Your task to perform on an android device: Search for 35 best books of all time Image 0: 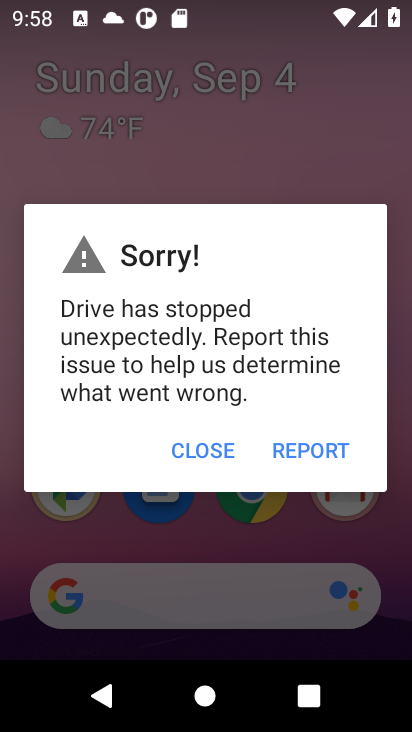
Step 0: click (228, 445)
Your task to perform on an android device: Search for 35 best books of all time Image 1: 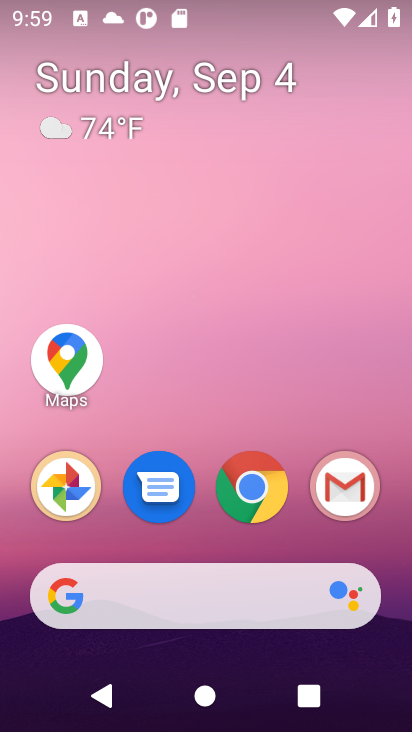
Step 1: click (218, 579)
Your task to perform on an android device: Search for 35 best books of all time Image 2: 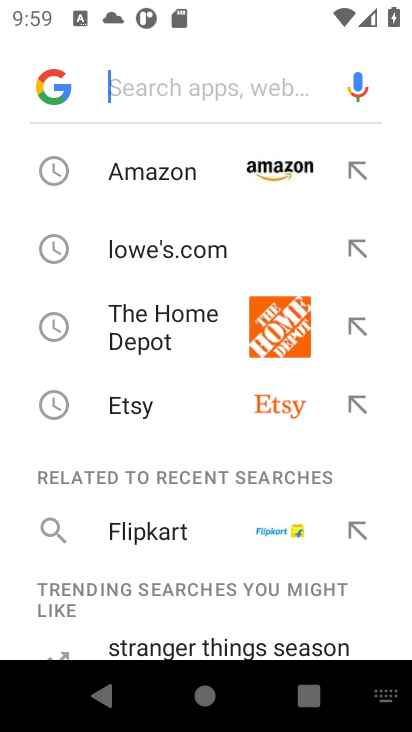
Step 2: type "35 best books of all time"
Your task to perform on an android device: Search for 35 best books of all time Image 3: 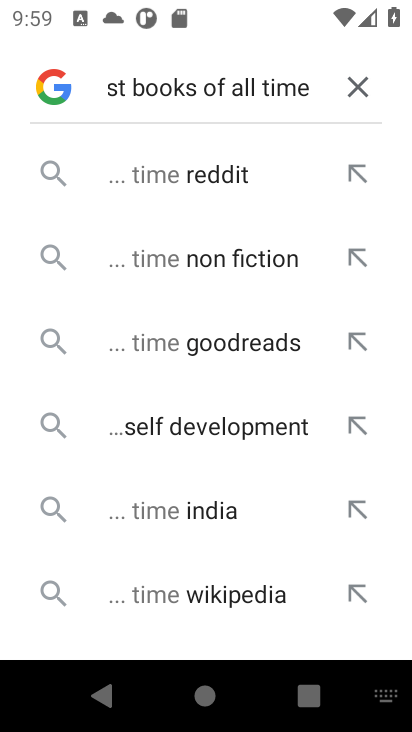
Step 3: click (320, 92)
Your task to perform on an android device: Search for 35 best books of all time Image 4: 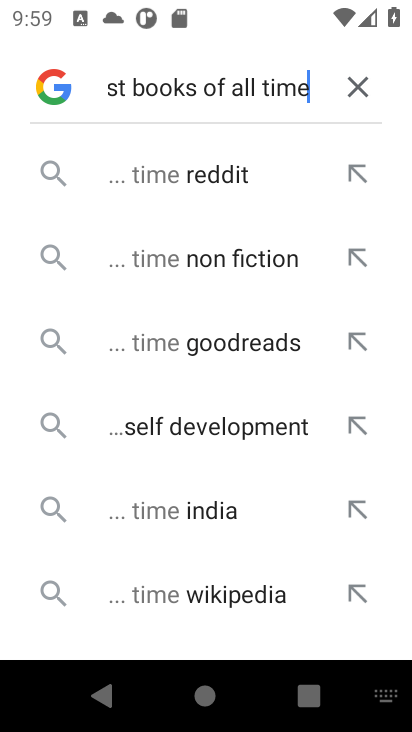
Step 4: press home button
Your task to perform on an android device: Search for 35 best books of all time Image 5: 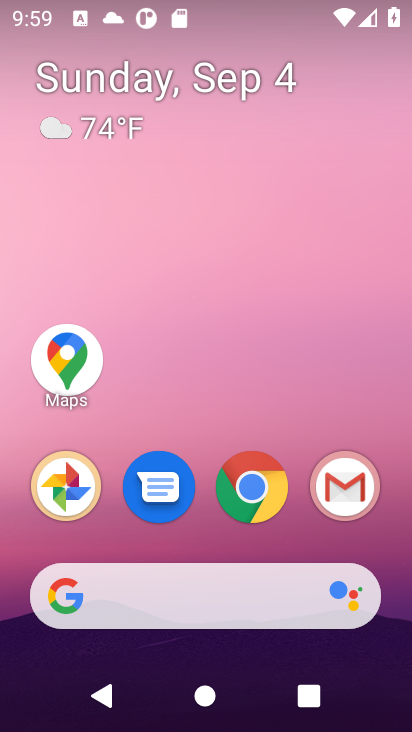
Step 5: click (252, 496)
Your task to perform on an android device: Search for 35 best books of all time Image 6: 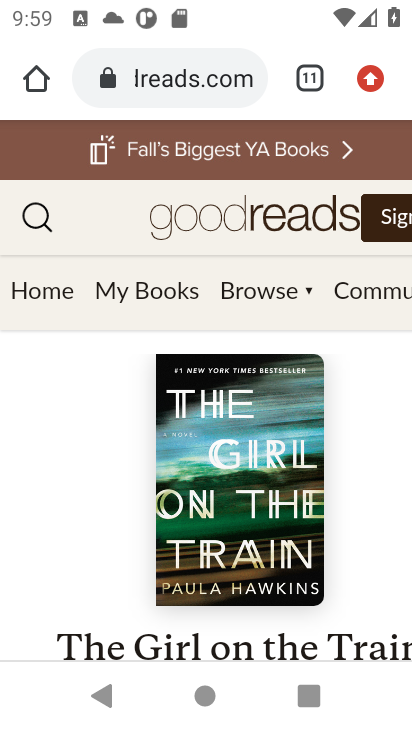
Step 6: click (258, 78)
Your task to perform on an android device: Search for 35 best books of all time Image 7: 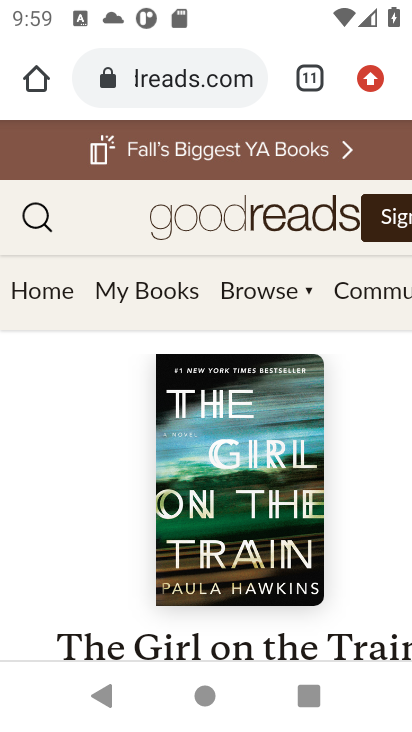
Step 7: click (31, 75)
Your task to perform on an android device: Search for 35 best books of all time Image 8: 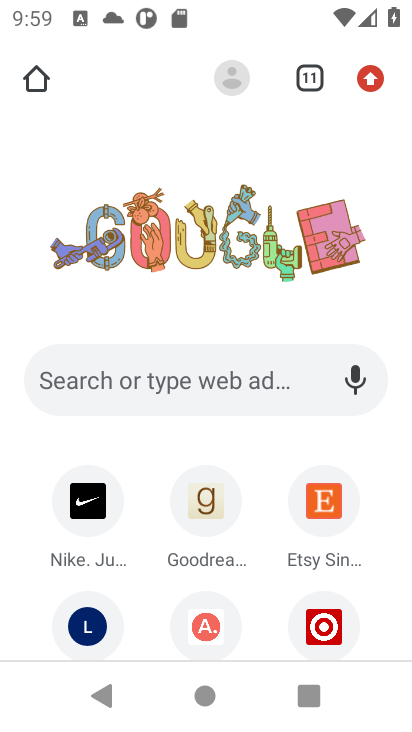
Step 8: click (228, 364)
Your task to perform on an android device: Search for 35 best books of all time Image 9: 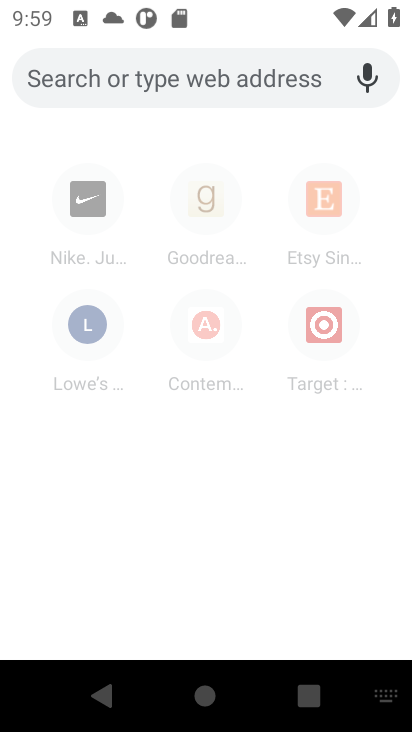
Step 9: type "35 best books of all time"
Your task to perform on an android device: Search for 35 best books of all time Image 10: 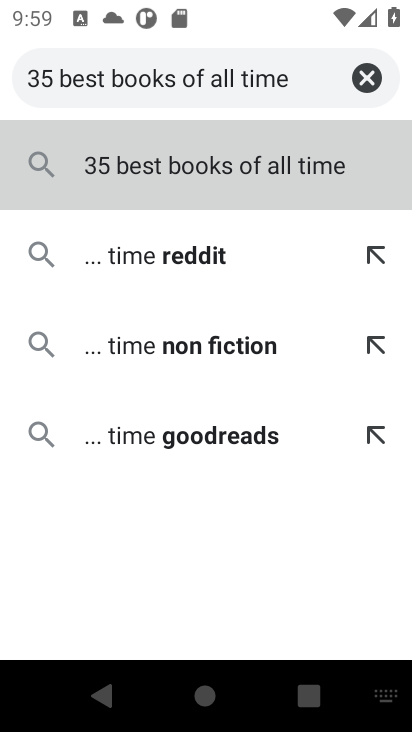
Step 10: click (147, 168)
Your task to perform on an android device: Search for 35 best books of all time Image 11: 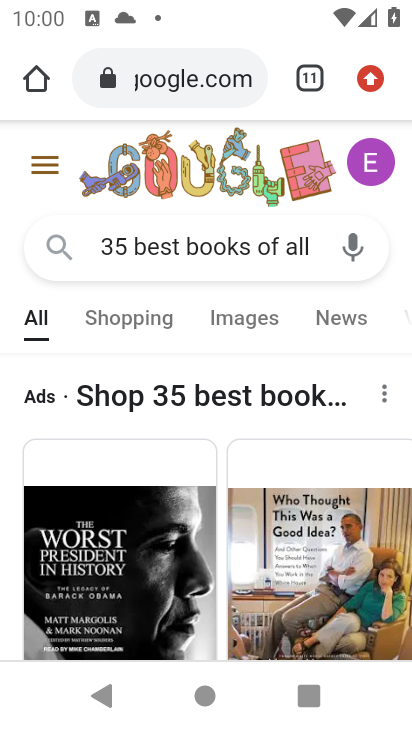
Step 11: drag from (227, 433) to (218, 100)
Your task to perform on an android device: Search for 35 best books of all time Image 12: 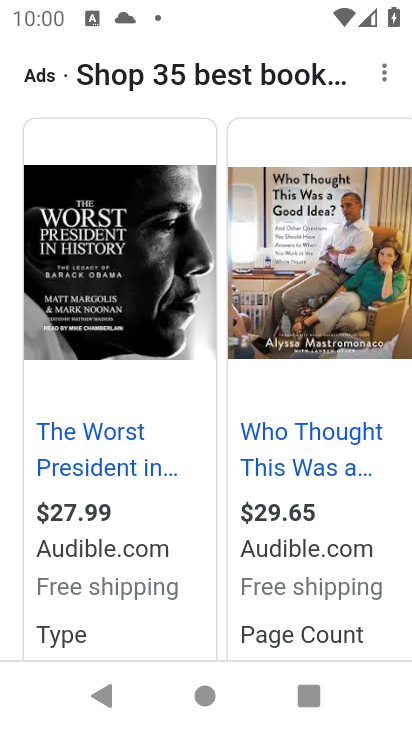
Step 12: drag from (220, 638) to (230, 123)
Your task to perform on an android device: Search for 35 best books of all time Image 13: 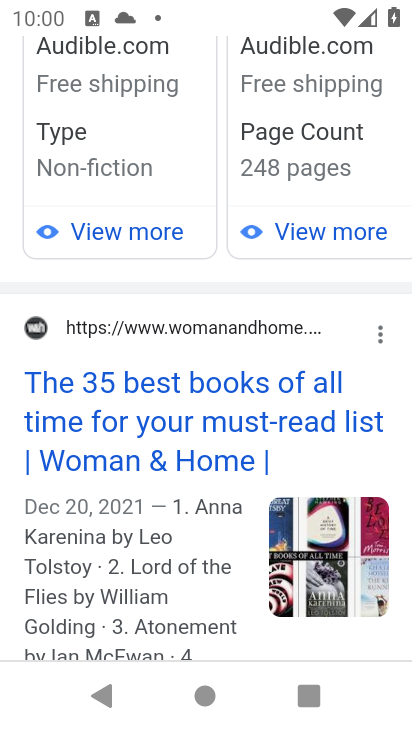
Step 13: click (127, 418)
Your task to perform on an android device: Search for 35 best books of all time Image 14: 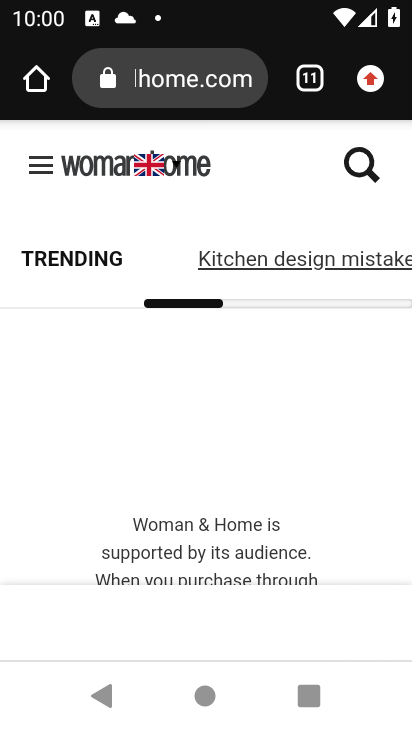
Step 14: task complete